Your task to perform on an android device: open a bookmark in the chrome app Image 0: 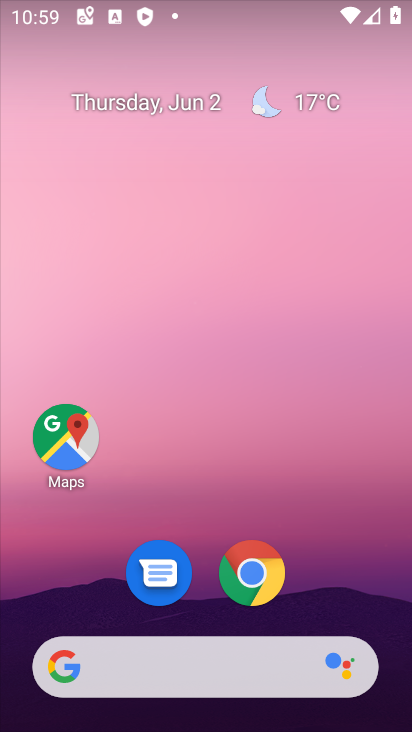
Step 0: drag from (348, 369) to (288, 2)
Your task to perform on an android device: open a bookmark in the chrome app Image 1: 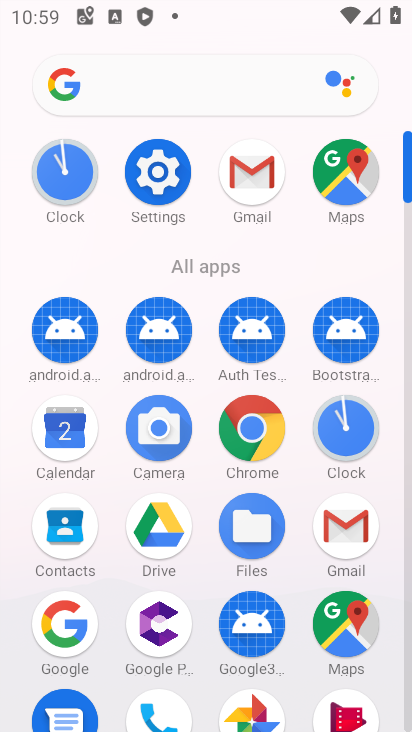
Step 1: click (258, 428)
Your task to perform on an android device: open a bookmark in the chrome app Image 2: 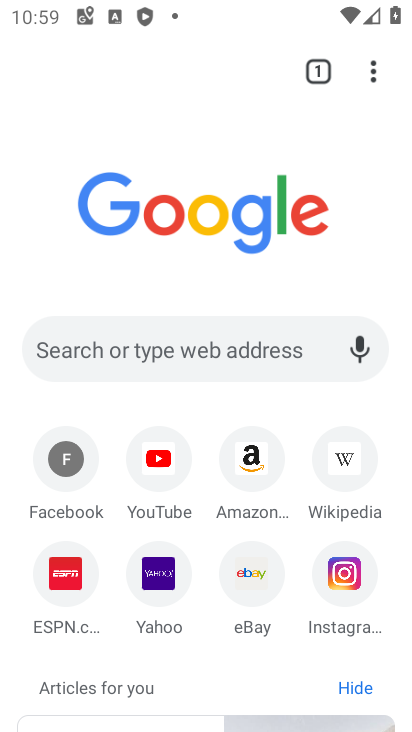
Step 2: drag from (376, 78) to (159, 273)
Your task to perform on an android device: open a bookmark in the chrome app Image 3: 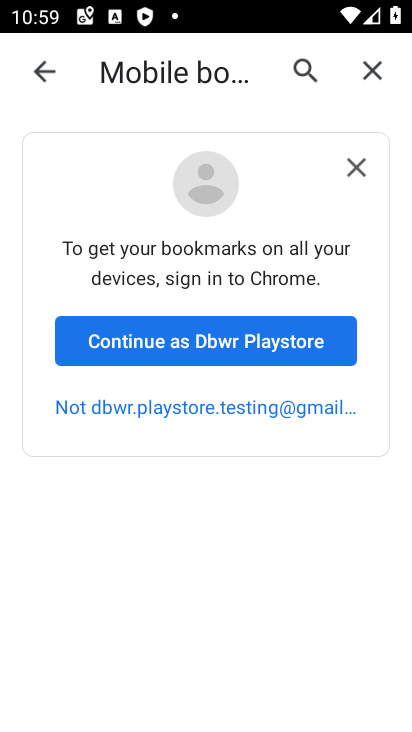
Step 3: drag from (208, 560) to (212, 284)
Your task to perform on an android device: open a bookmark in the chrome app Image 4: 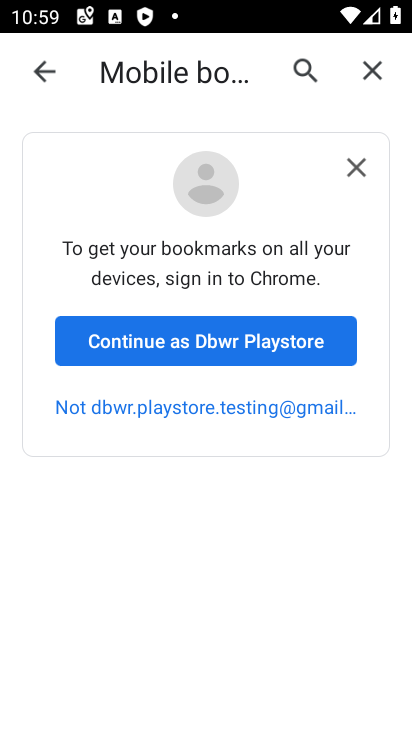
Step 4: click (202, 331)
Your task to perform on an android device: open a bookmark in the chrome app Image 5: 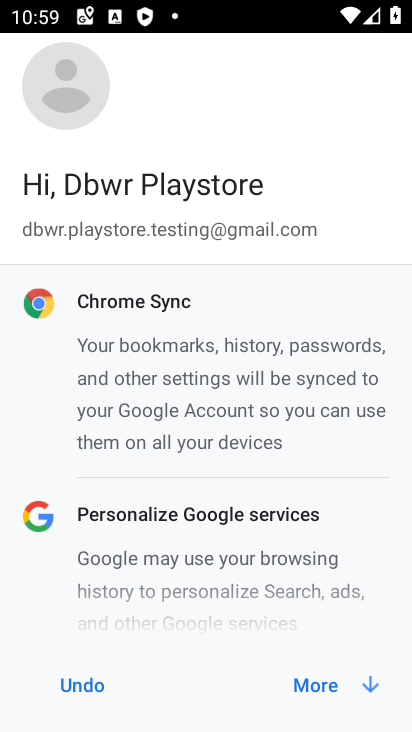
Step 5: click (306, 692)
Your task to perform on an android device: open a bookmark in the chrome app Image 6: 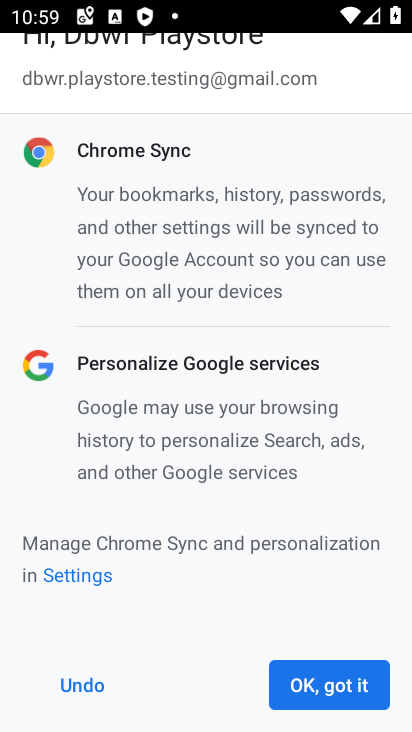
Step 6: click (306, 692)
Your task to perform on an android device: open a bookmark in the chrome app Image 7: 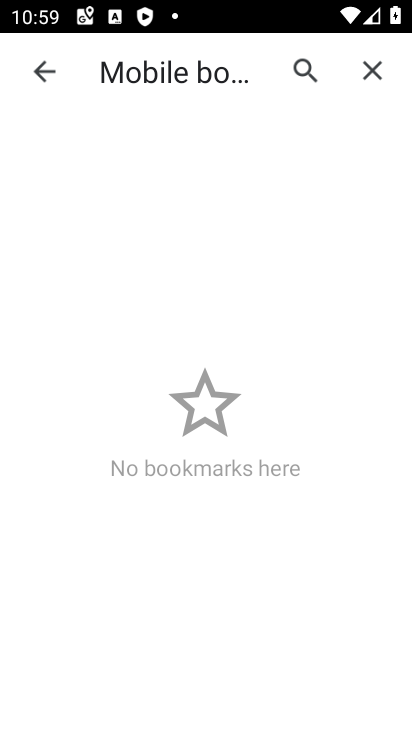
Step 7: task complete